Your task to perform on an android device: Go to internet settings Image 0: 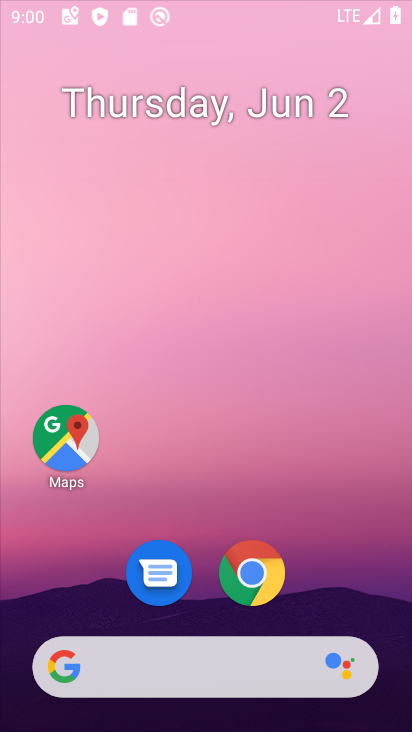
Step 0: press home button
Your task to perform on an android device: Go to internet settings Image 1: 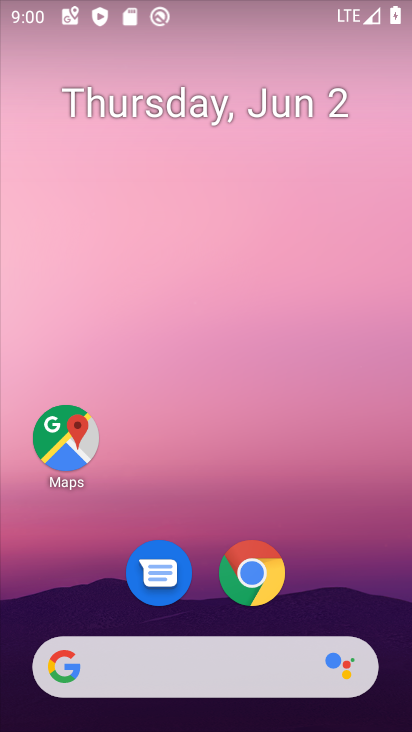
Step 1: drag from (352, 557) to (363, 2)
Your task to perform on an android device: Go to internet settings Image 2: 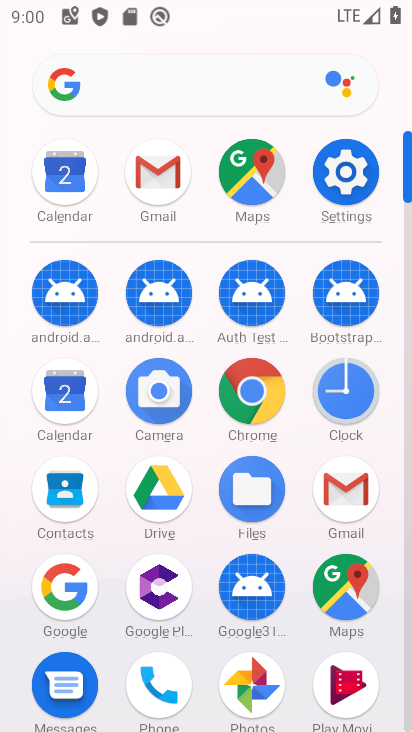
Step 2: click (342, 171)
Your task to perform on an android device: Go to internet settings Image 3: 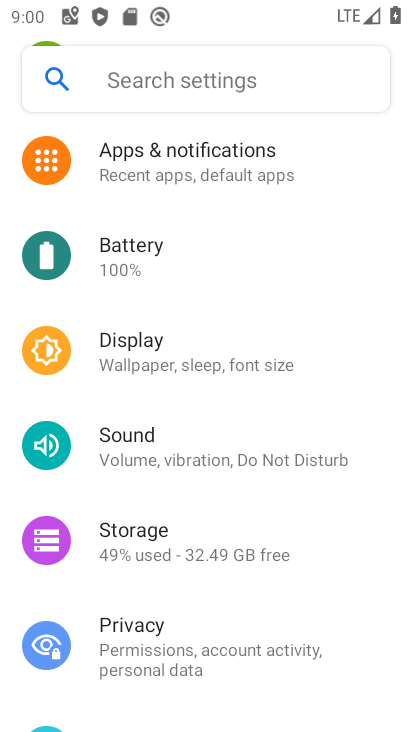
Step 3: drag from (246, 258) to (222, 729)
Your task to perform on an android device: Go to internet settings Image 4: 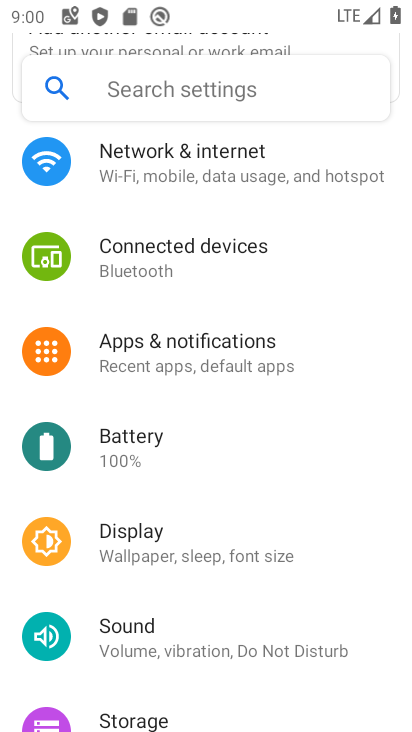
Step 4: click (177, 191)
Your task to perform on an android device: Go to internet settings Image 5: 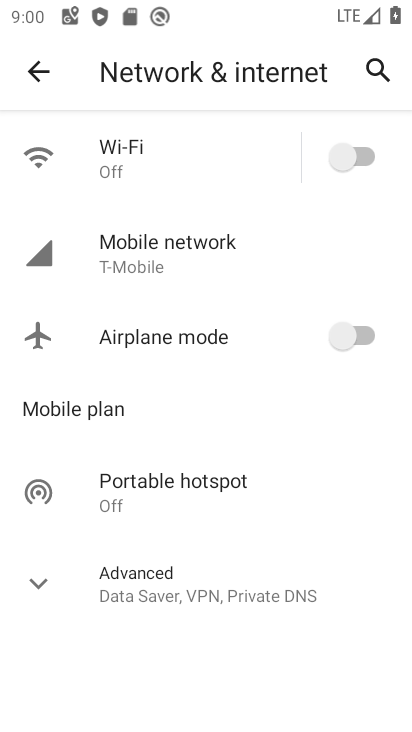
Step 5: task complete